Your task to perform on an android device: turn off translation in the chrome app Image 0: 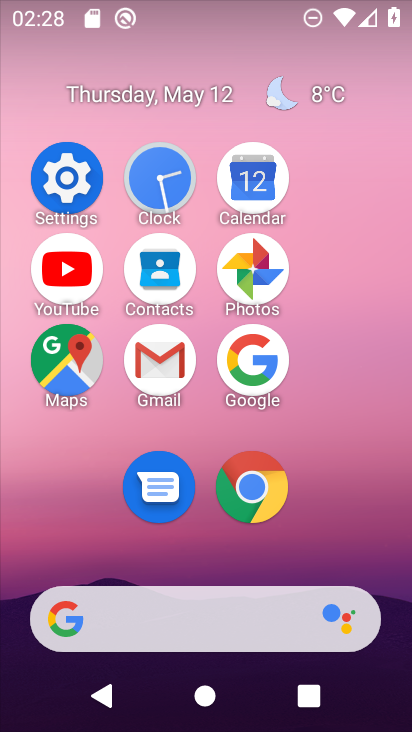
Step 0: click (264, 482)
Your task to perform on an android device: turn off translation in the chrome app Image 1: 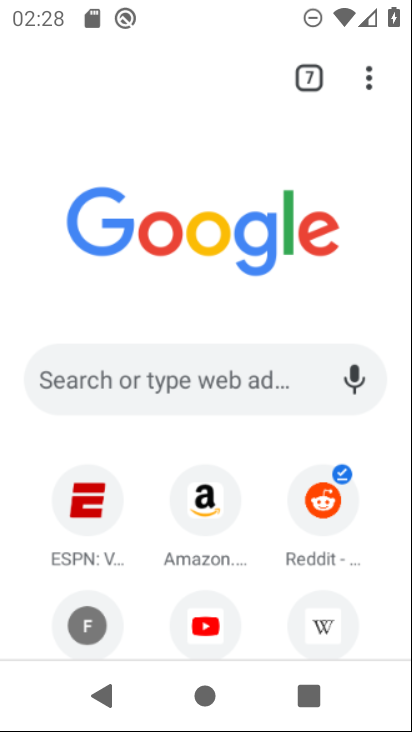
Step 1: click (367, 84)
Your task to perform on an android device: turn off translation in the chrome app Image 2: 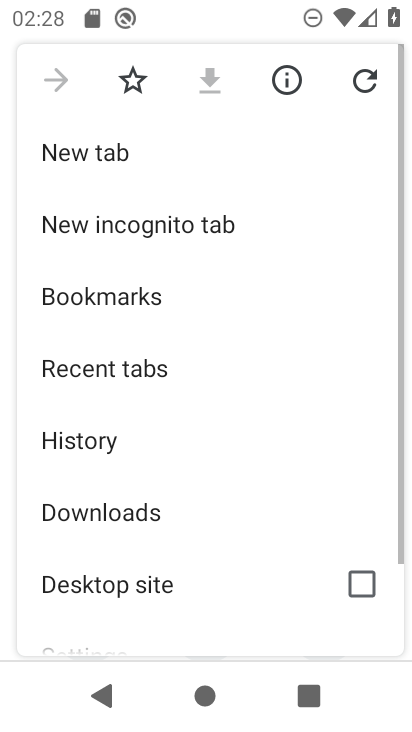
Step 2: drag from (221, 588) to (279, 188)
Your task to perform on an android device: turn off translation in the chrome app Image 3: 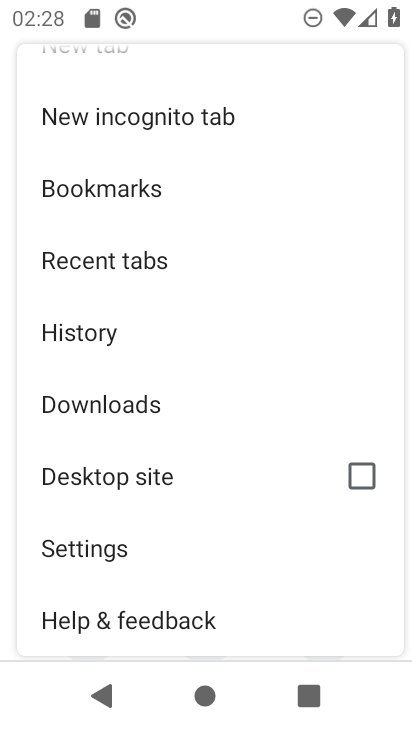
Step 3: click (125, 568)
Your task to perform on an android device: turn off translation in the chrome app Image 4: 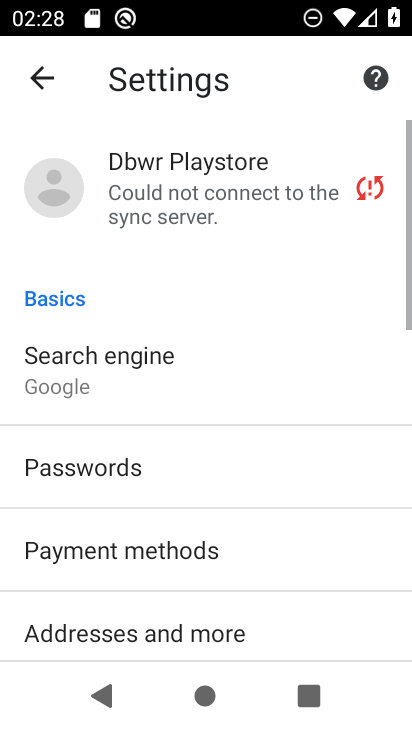
Step 4: drag from (224, 600) to (258, 191)
Your task to perform on an android device: turn off translation in the chrome app Image 5: 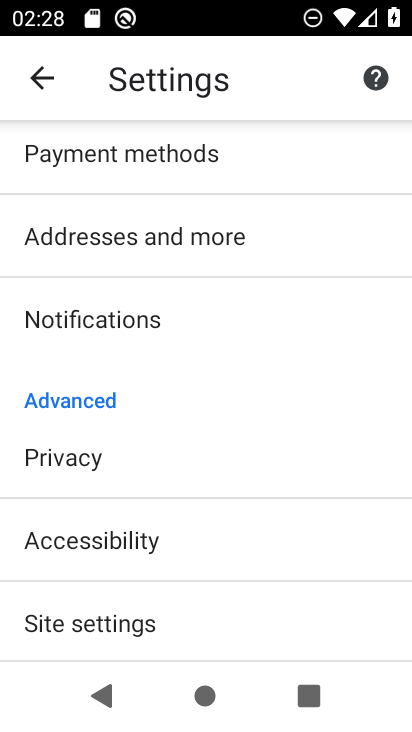
Step 5: drag from (236, 591) to (235, 231)
Your task to perform on an android device: turn off translation in the chrome app Image 6: 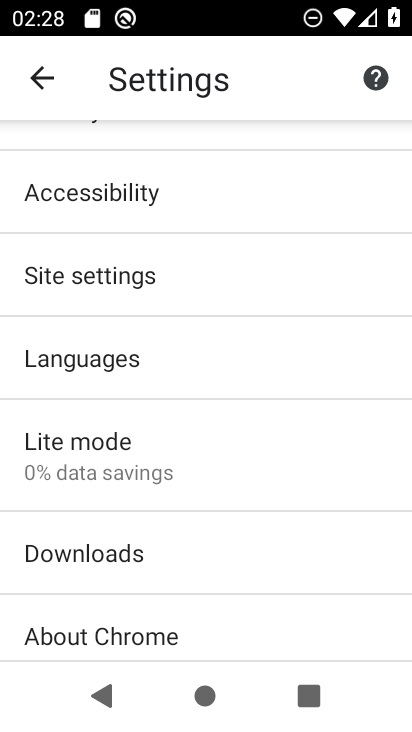
Step 6: click (190, 333)
Your task to perform on an android device: turn off translation in the chrome app Image 7: 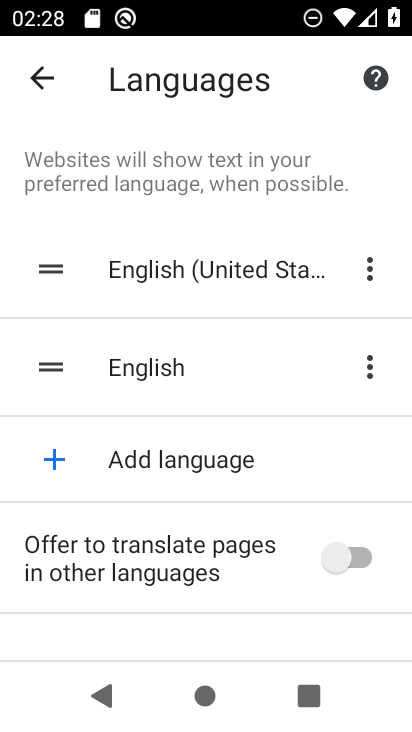
Step 7: task complete